Your task to perform on an android device: Search for logitech g pro on ebay.com, select the first entry, and add it to the cart. Image 0: 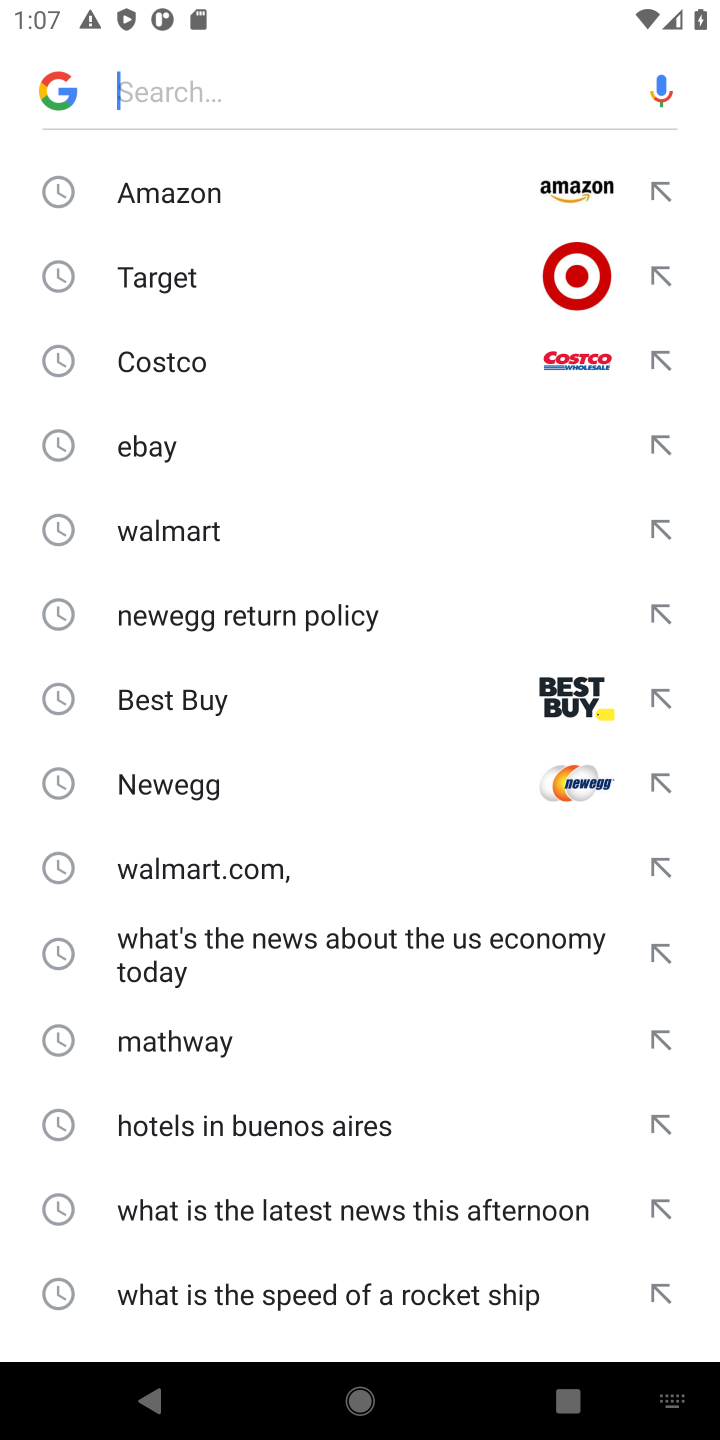
Step 0: click (186, 451)
Your task to perform on an android device: Search for logitech g pro on ebay.com, select the first entry, and add it to the cart. Image 1: 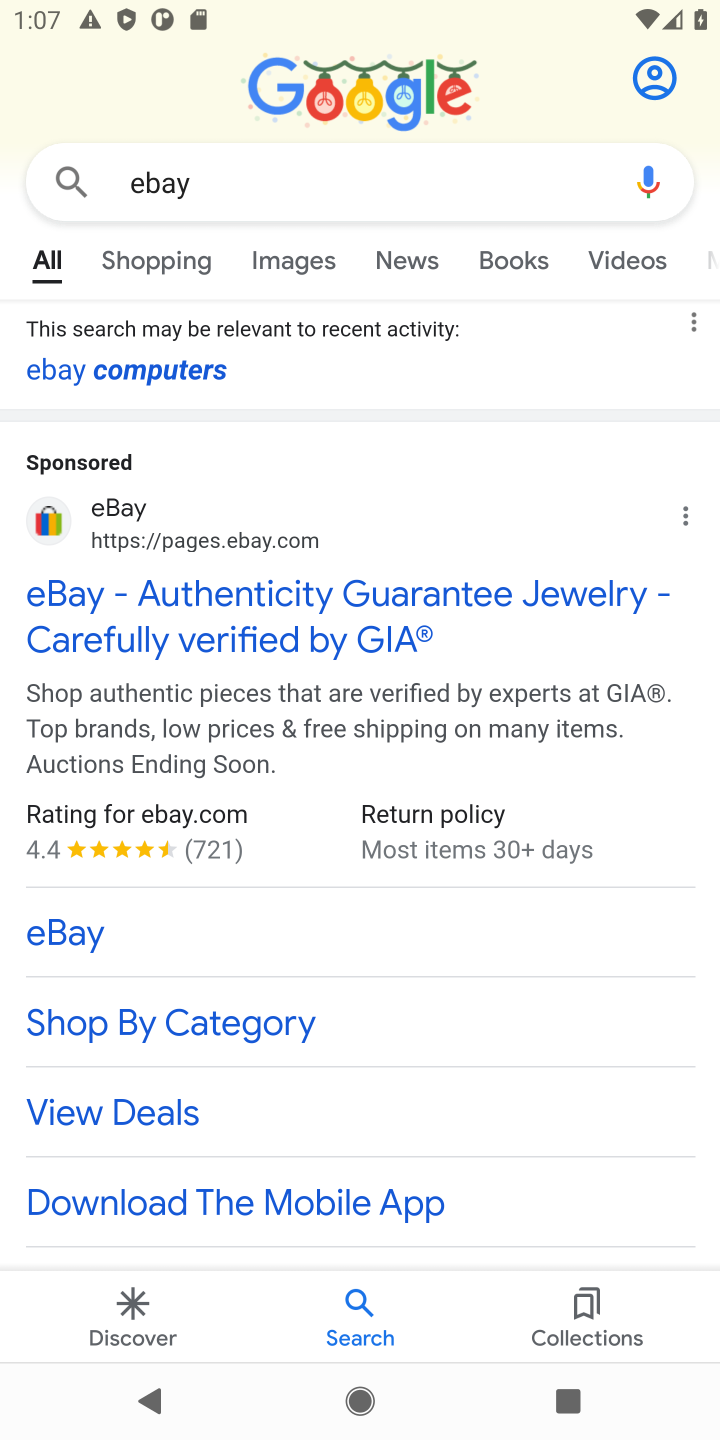
Step 1: click (133, 611)
Your task to perform on an android device: Search for logitech g pro on ebay.com, select the first entry, and add it to the cart. Image 2: 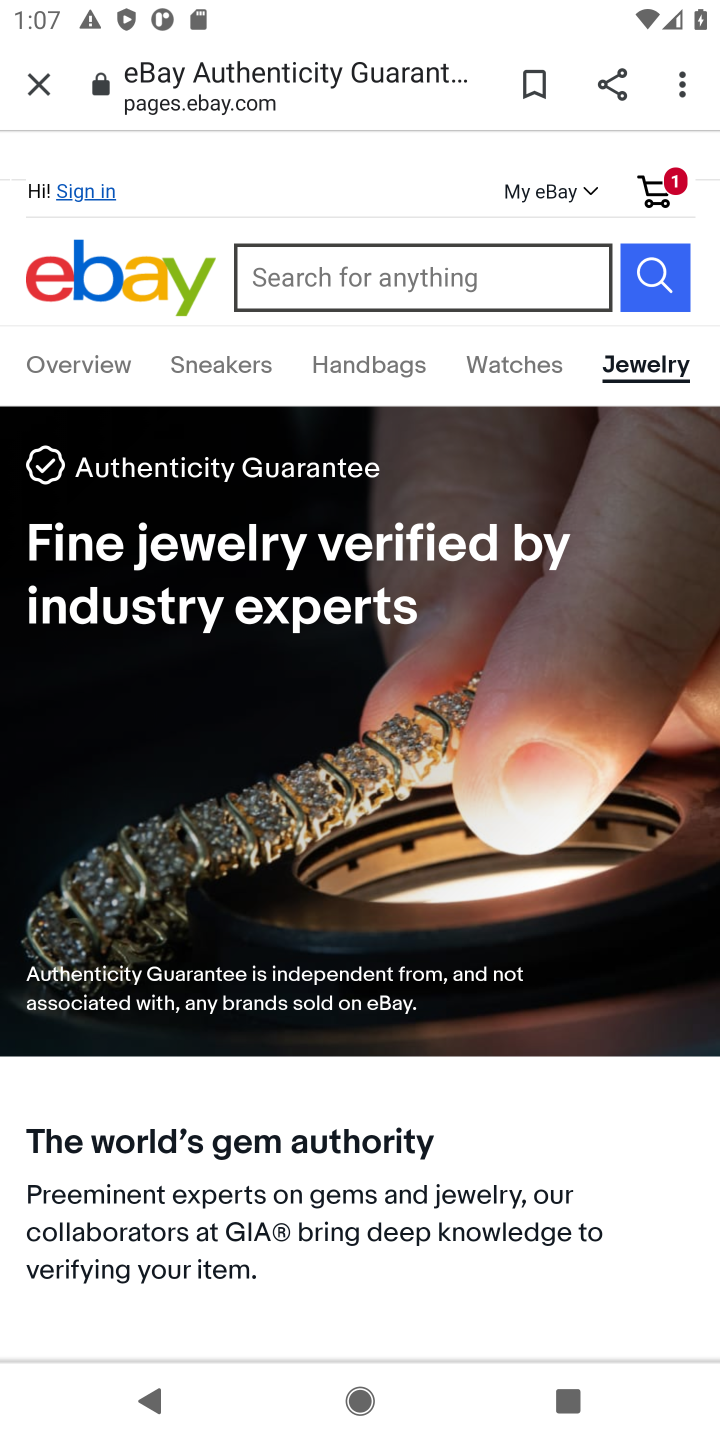
Step 2: click (331, 262)
Your task to perform on an android device: Search for logitech g pro on ebay.com, select the first entry, and add it to the cart. Image 3: 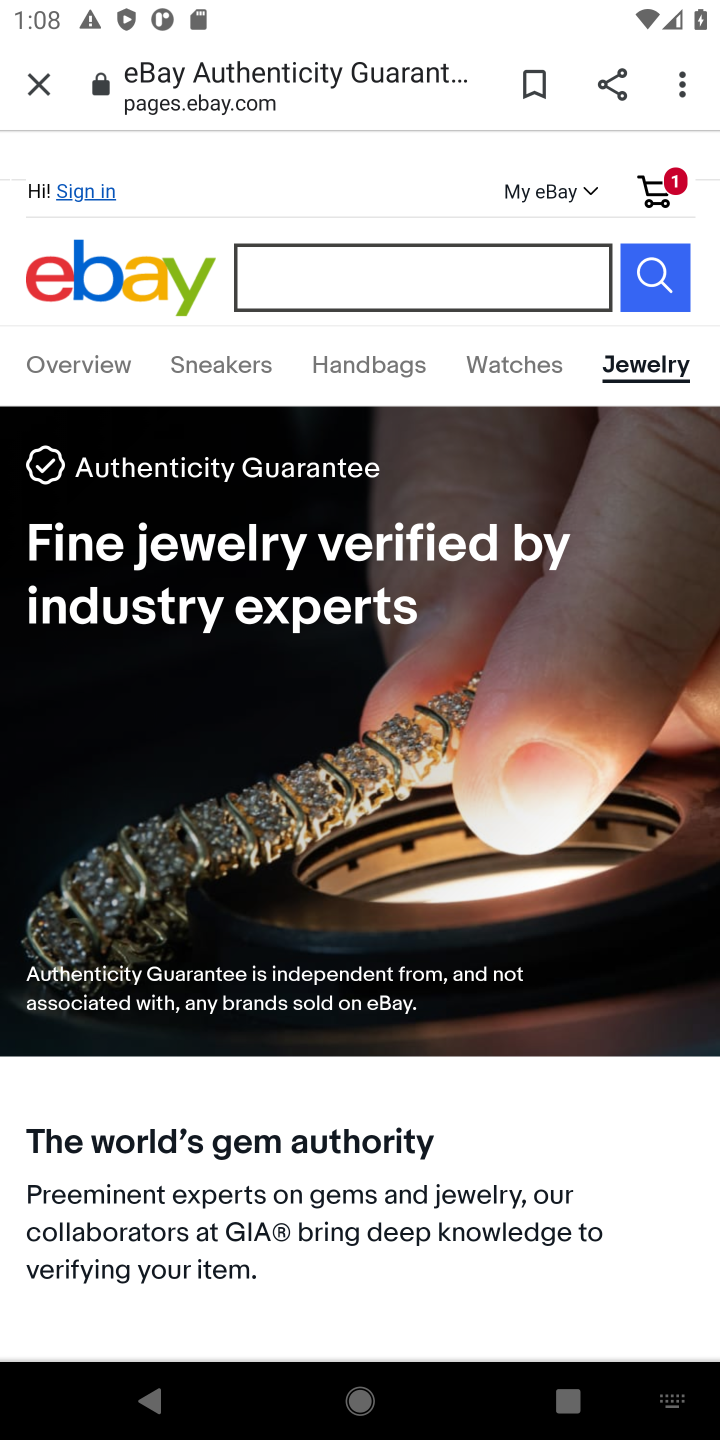
Step 3: type " logitech g pro "
Your task to perform on an android device: Search for logitech g pro on ebay.com, select the first entry, and add it to the cart. Image 4: 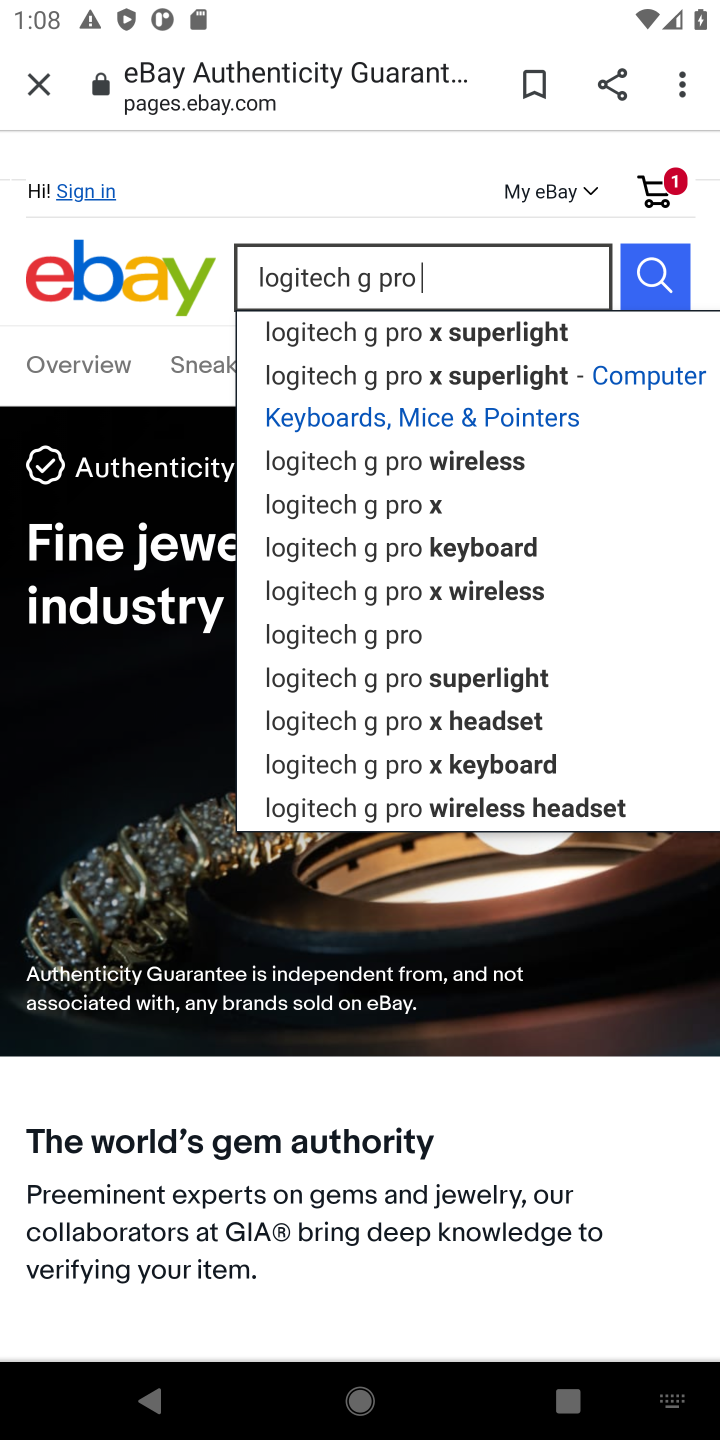
Step 4: click (662, 263)
Your task to perform on an android device: Search for logitech g pro on ebay.com, select the first entry, and add it to the cart. Image 5: 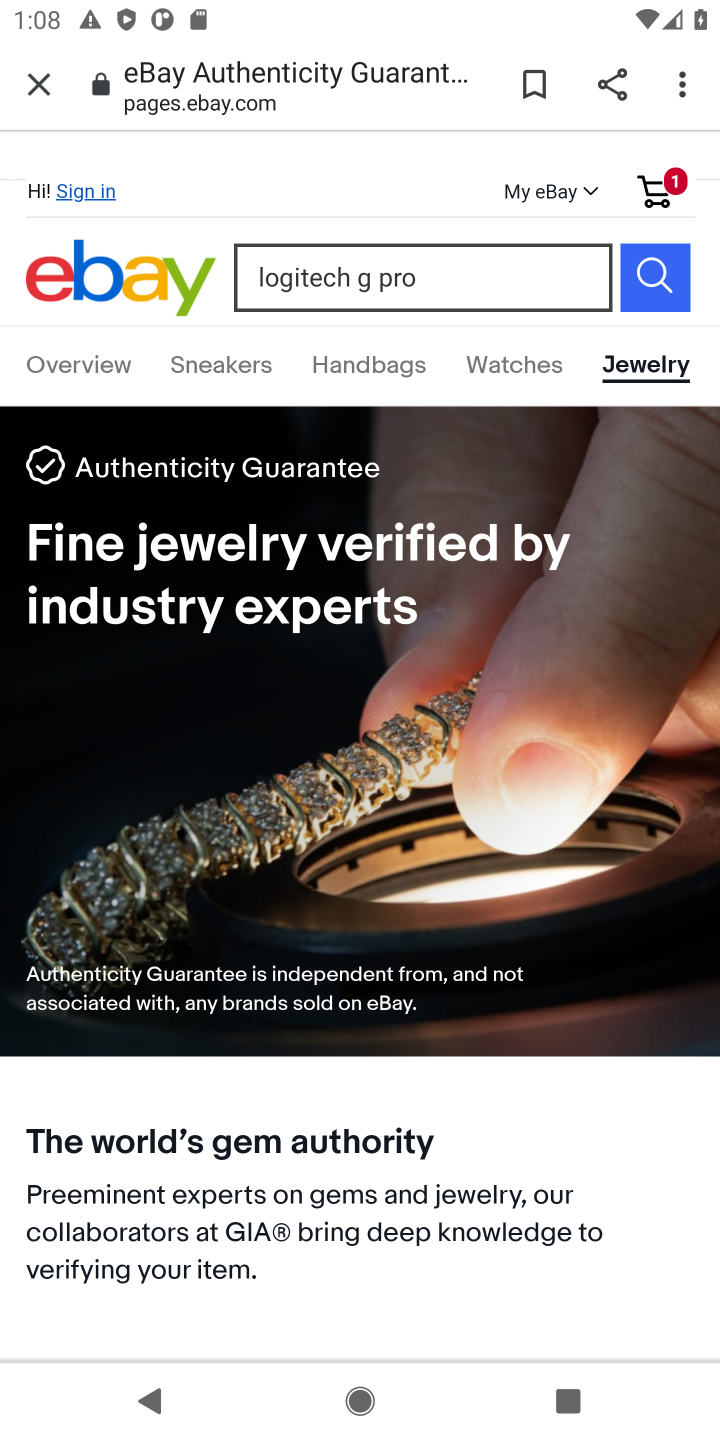
Step 5: click (656, 288)
Your task to perform on an android device: Search for logitech g pro on ebay.com, select the first entry, and add it to the cart. Image 6: 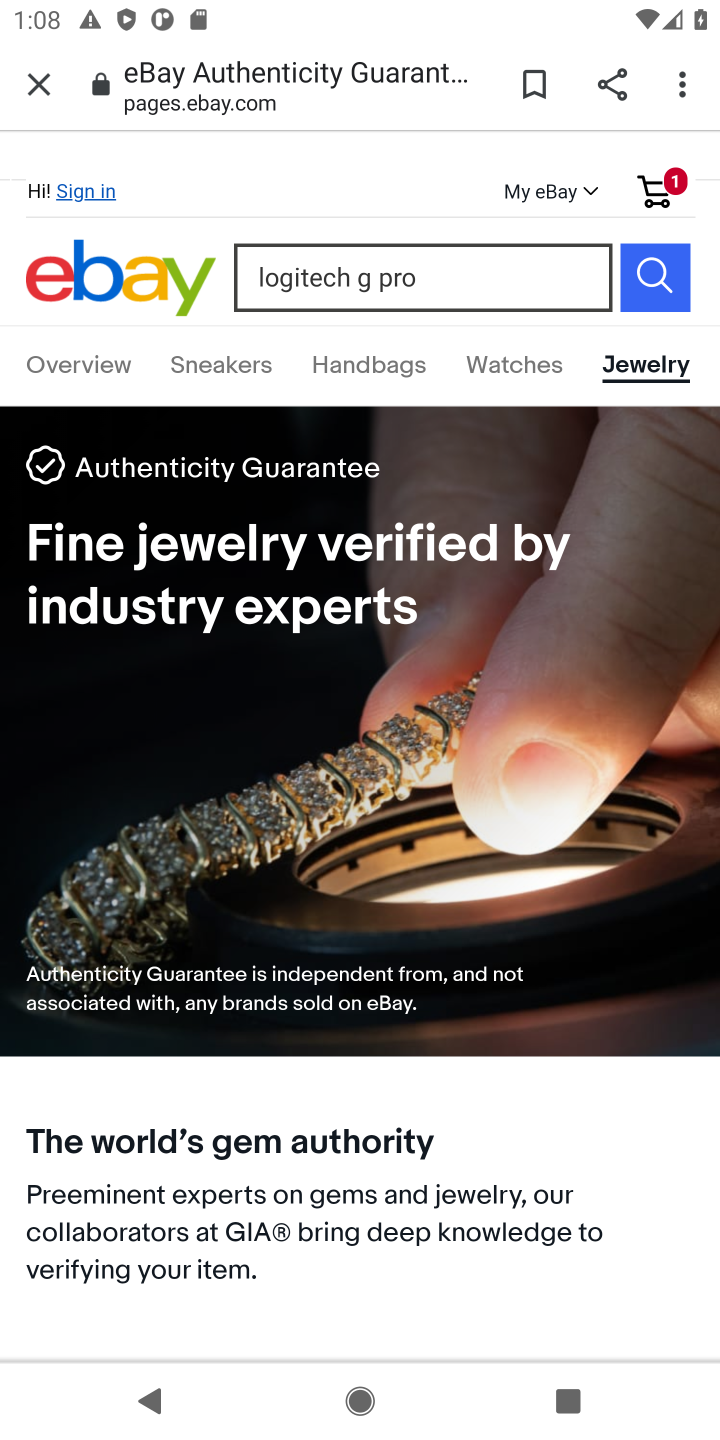
Step 6: click (656, 288)
Your task to perform on an android device: Search for logitech g pro on ebay.com, select the first entry, and add it to the cart. Image 7: 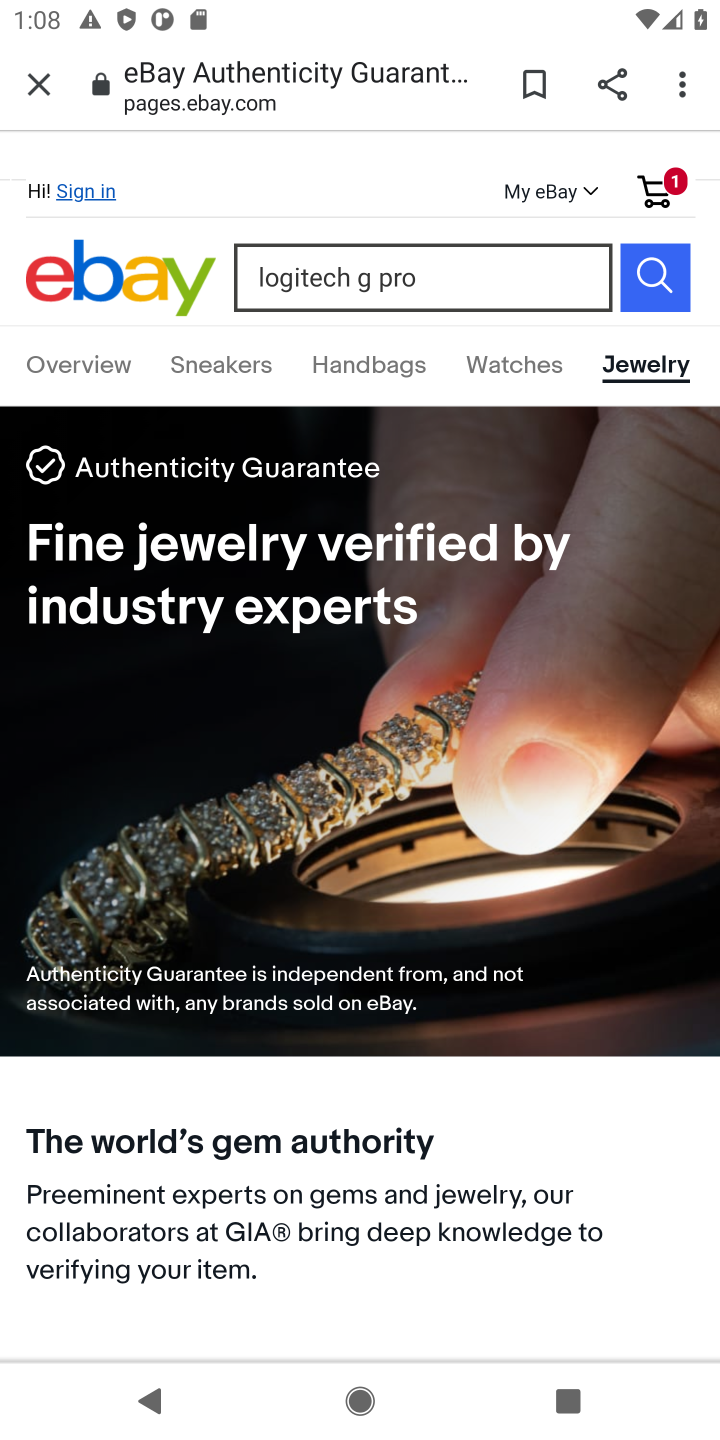
Step 7: click (646, 288)
Your task to perform on an android device: Search for logitech g pro on ebay.com, select the first entry, and add it to the cart. Image 8: 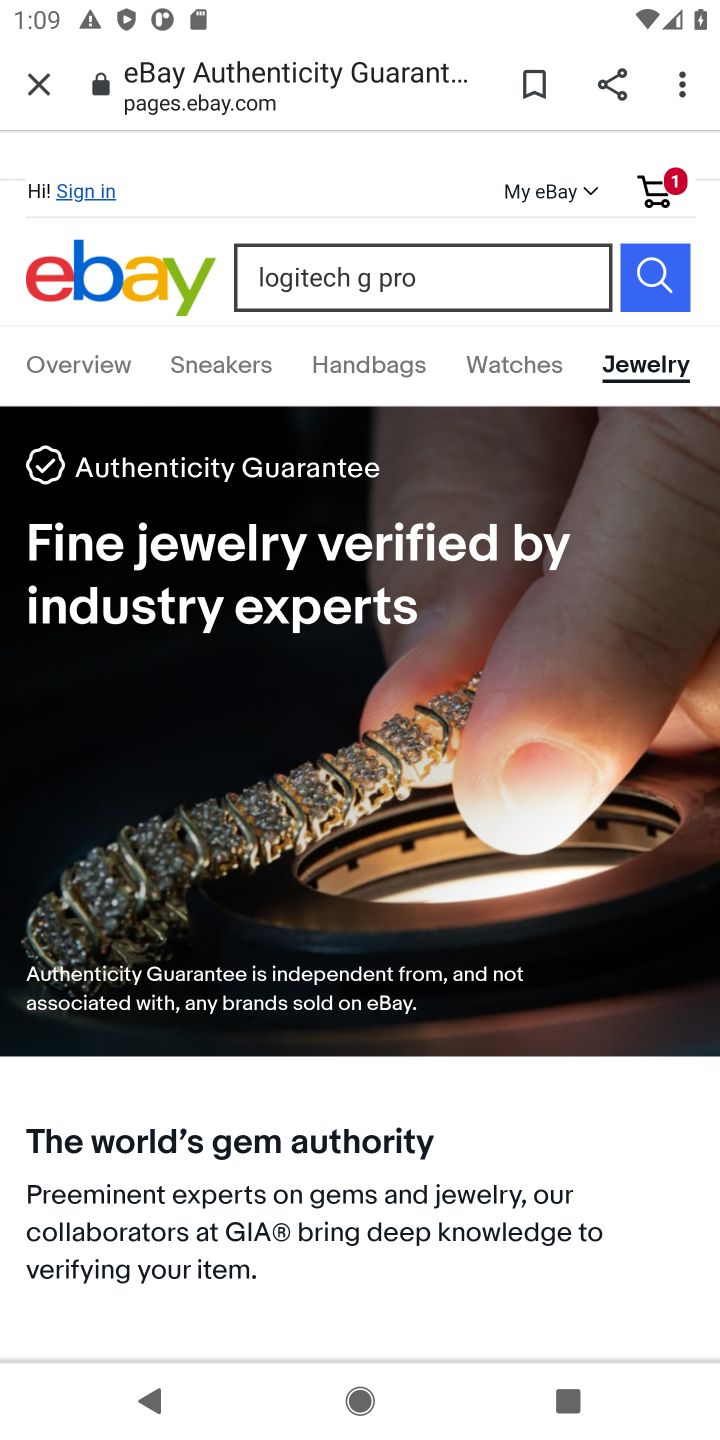
Step 8: drag from (399, 645) to (362, 502)
Your task to perform on an android device: Search for logitech g pro on ebay.com, select the first entry, and add it to the cart. Image 9: 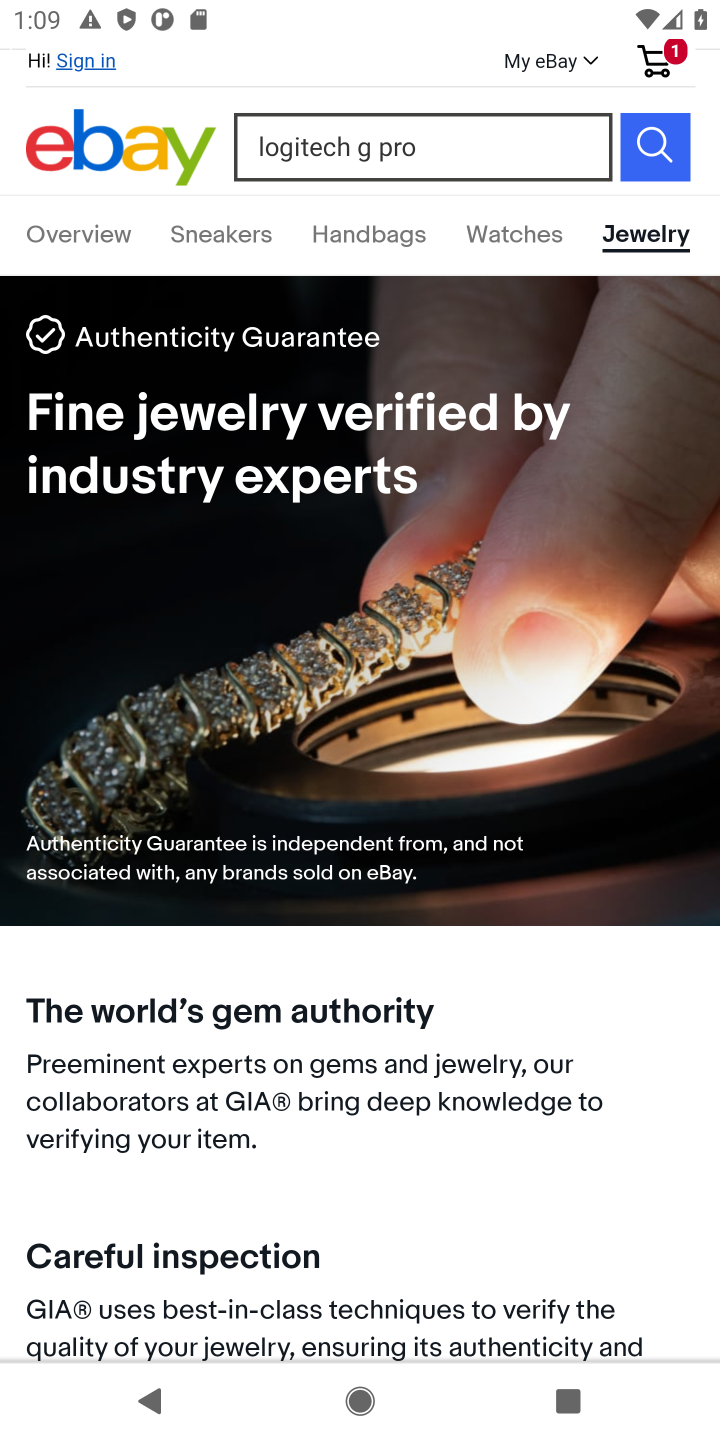
Step 9: click (669, 278)
Your task to perform on an android device: Search for logitech g pro on ebay.com, select the first entry, and add it to the cart. Image 10: 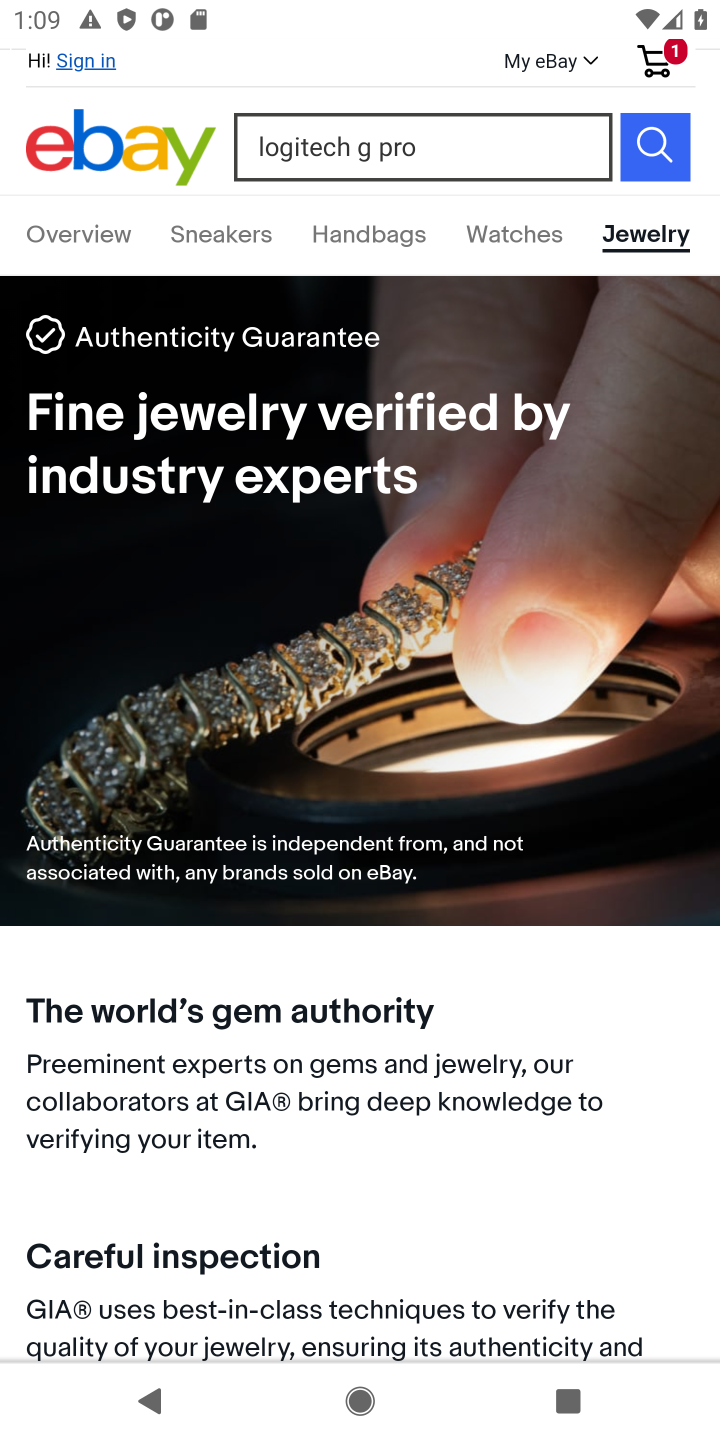
Step 10: click (656, 162)
Your task to perform on an android device: Search for logitech g pro on ebay.com, select the first entry, and add it to the cart. Image 11: 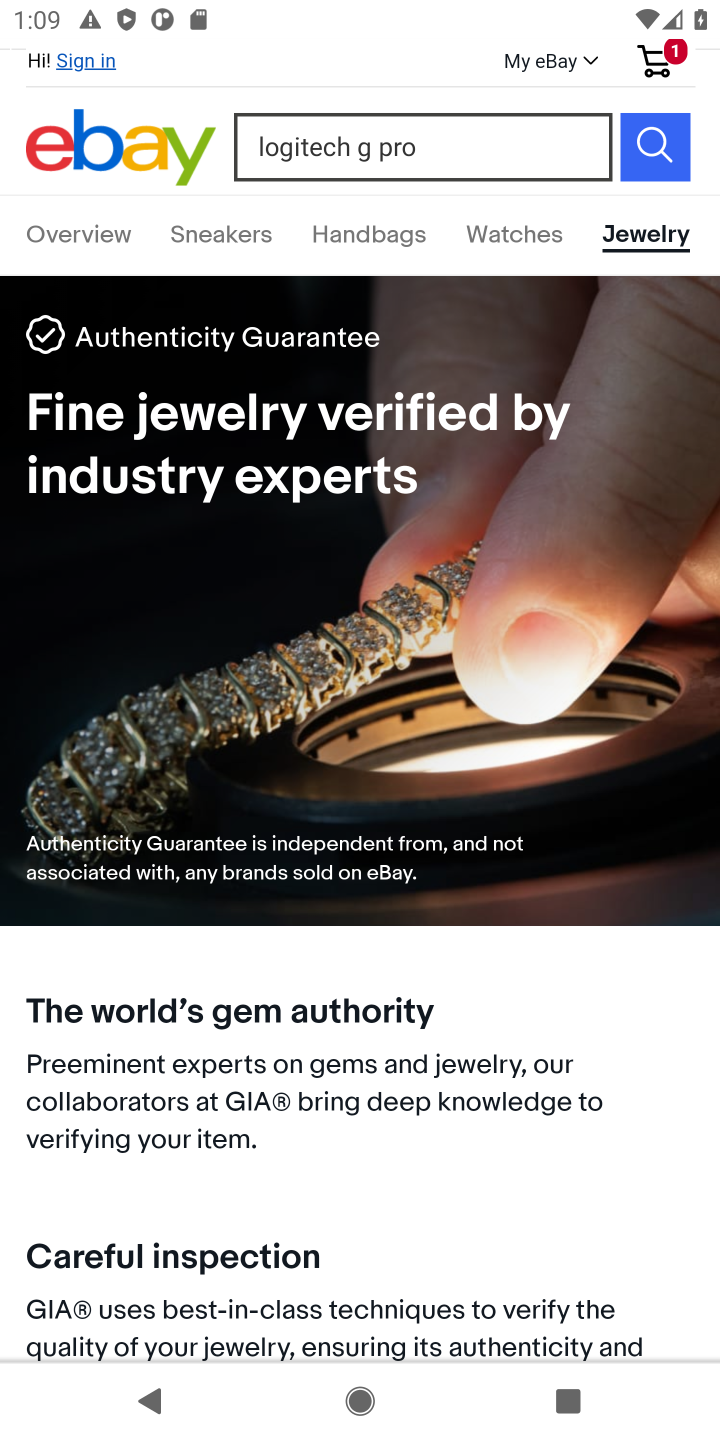
Step 11: click (654, 132)
Your task to perform on an android device: Search for logitech g pro on ebay.com, select the first entry, and add it to the cart. Image 12: 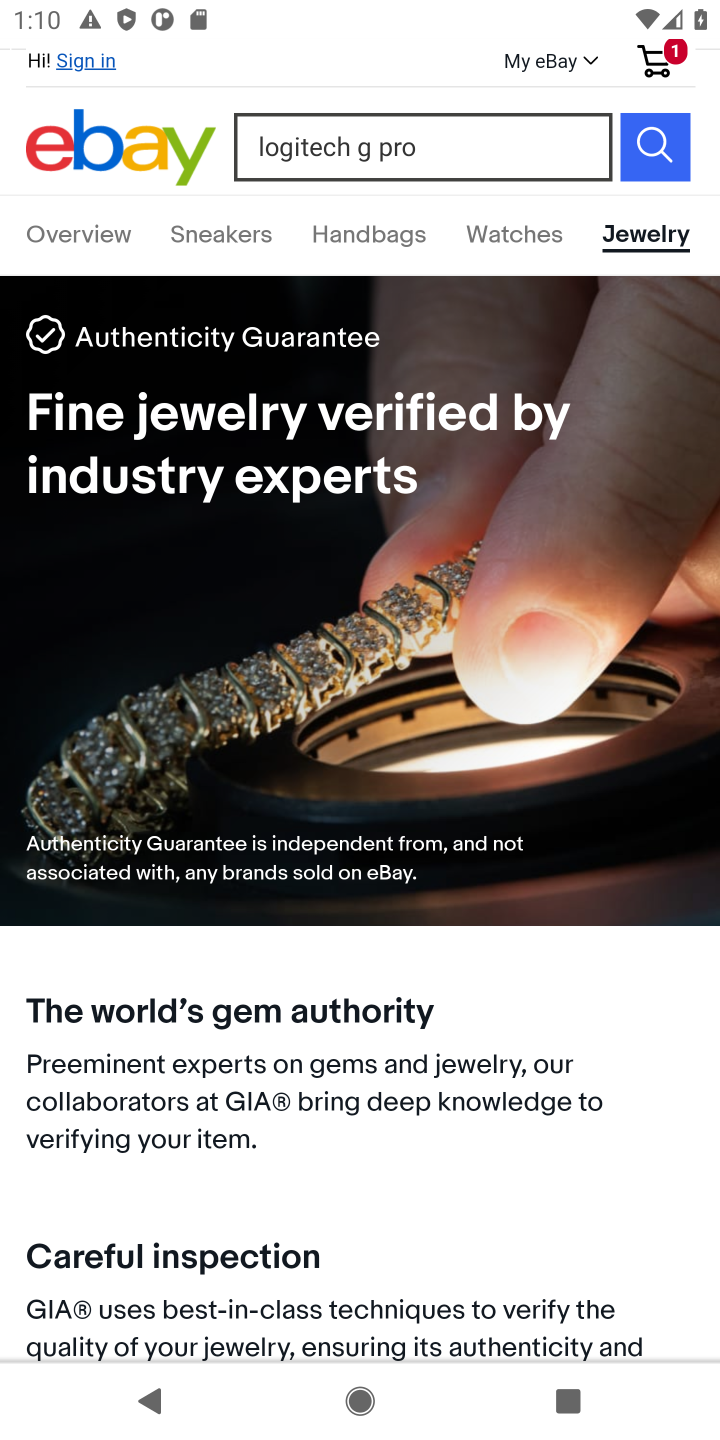
Step 12: click (670, 155)
Your task to perform on an android device: Search for logitech g pro on ebay.com, select the first entry, and add it to the cart. Image 13: 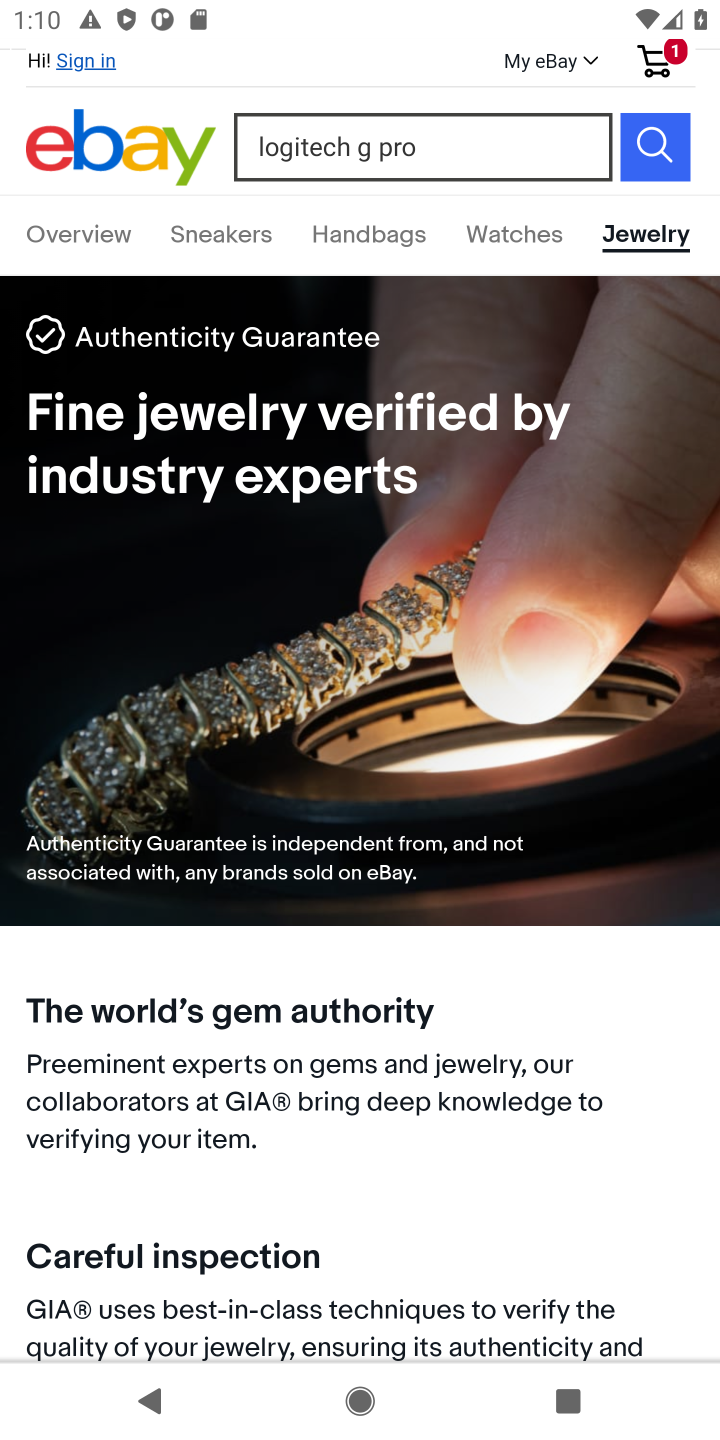
Step 13: click (670, 155)
Your task to perform on an android device: Search for logitech g pro on ebay.com, select the first entry, and add it to the cart. Image 14: 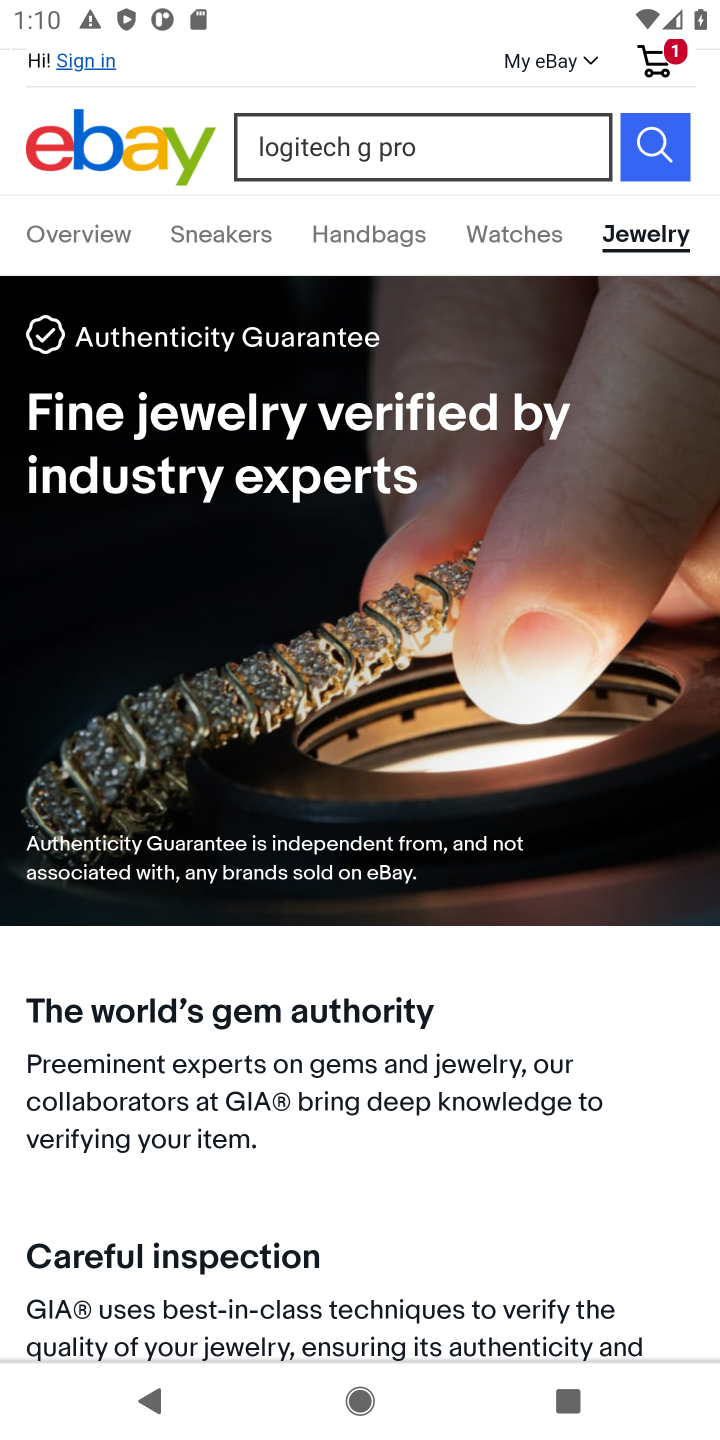
Step 14: task complete